Your task to perform on an android device: Search for the Best selling coffee table on Ikea Image 0: 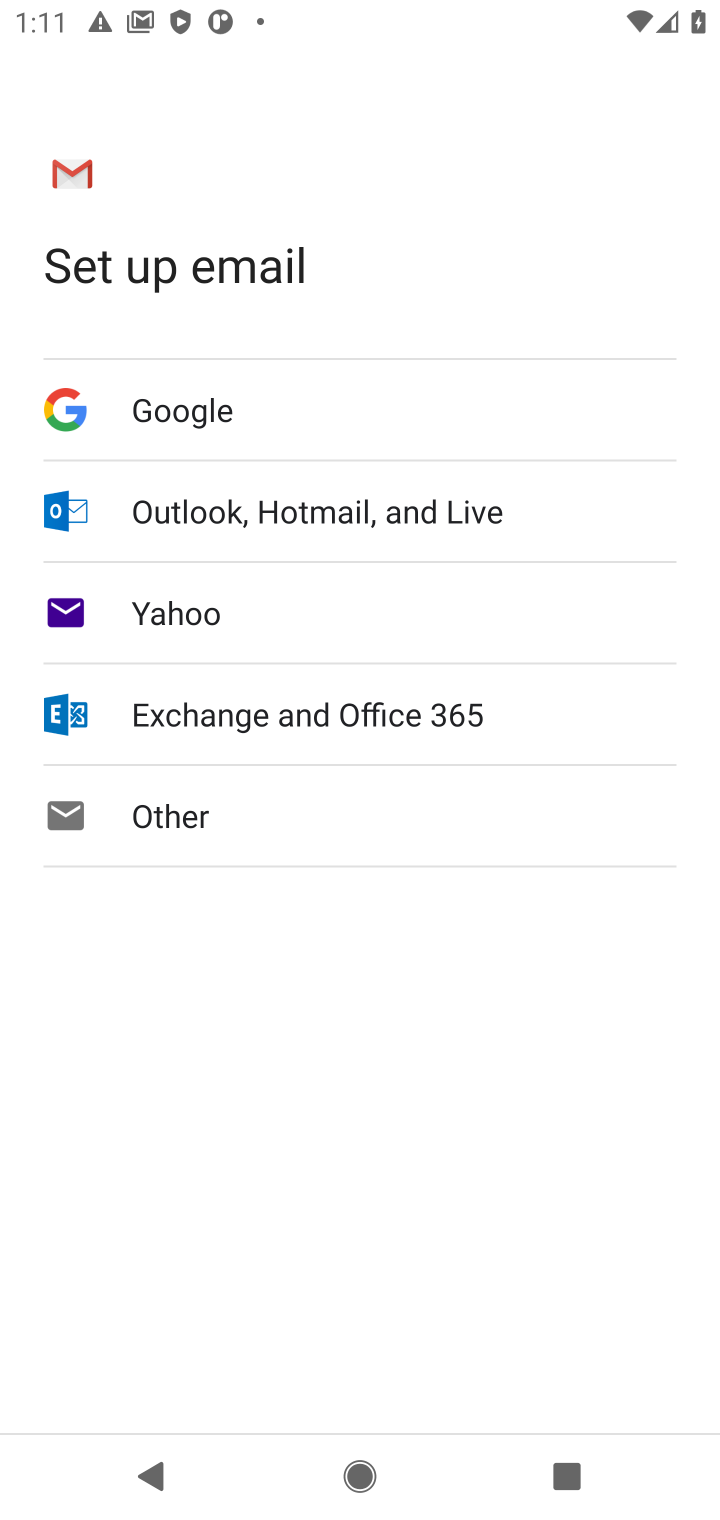
Step 0: press home button
Your task to perform on an android device: Search for the Best selling coffee table on Ikea Image 1: 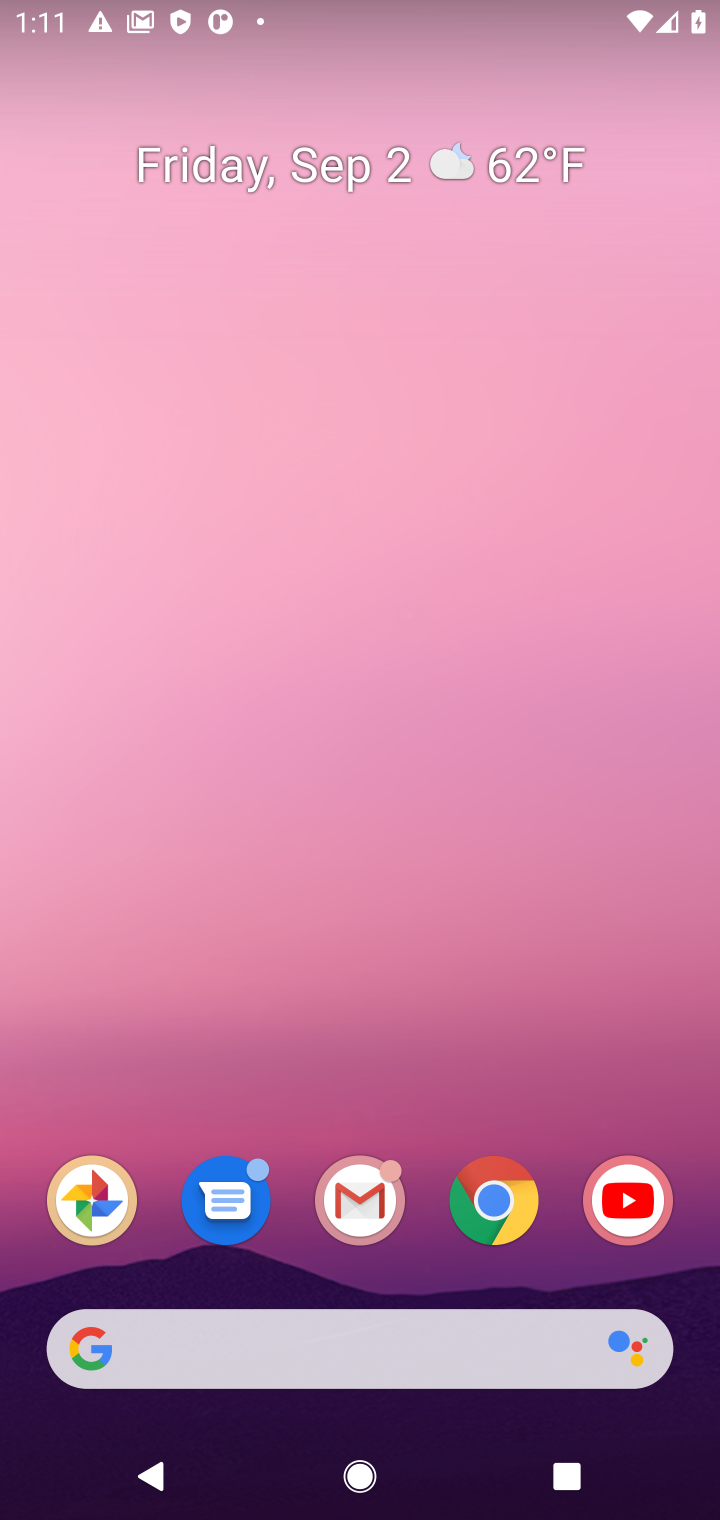
Step 1: click (483, 1202)
Your task to perform on an android device: Search for the Best selling coffee table on Ikea Image 2: 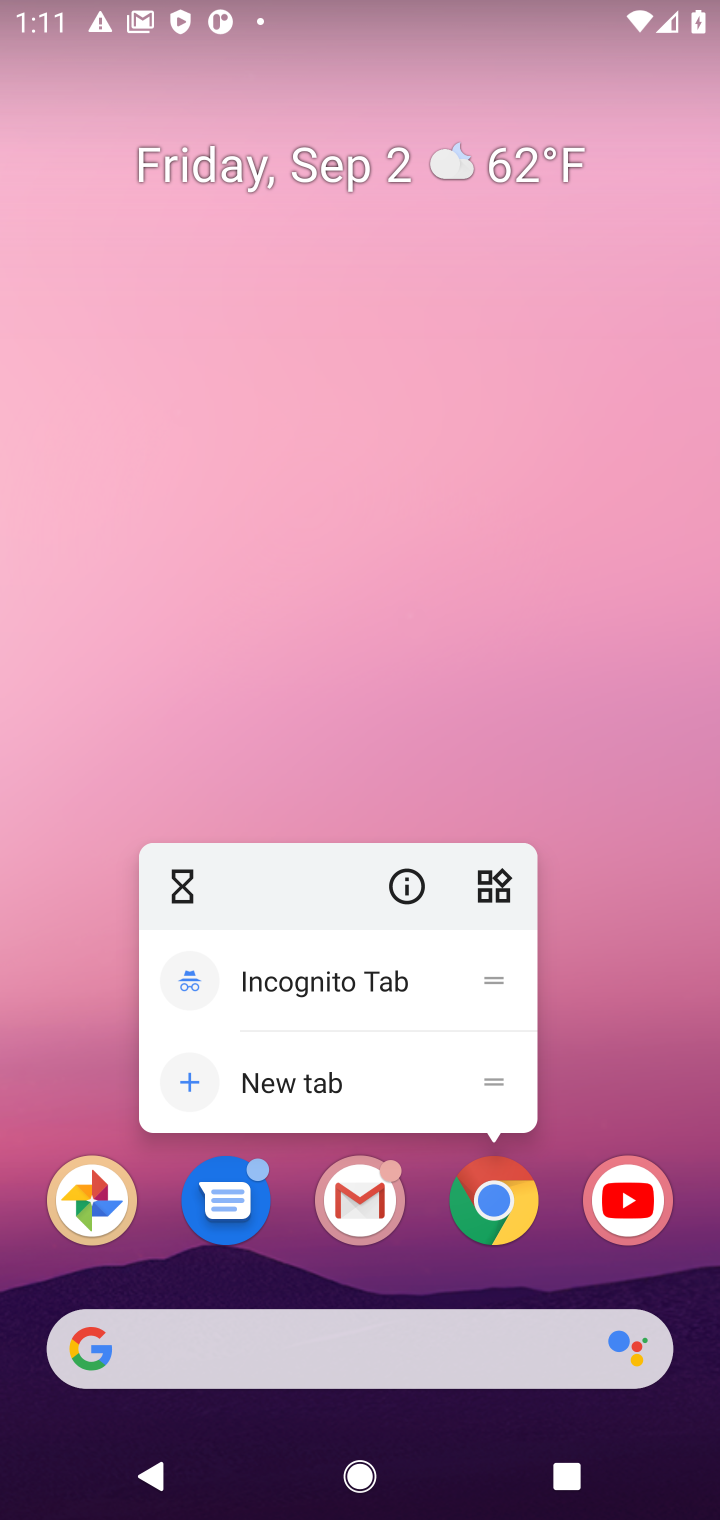
Step 2: click (483, 1203)
Your task to perform on an android device: Search for the Best selling coffee table on Ikea Image 3: 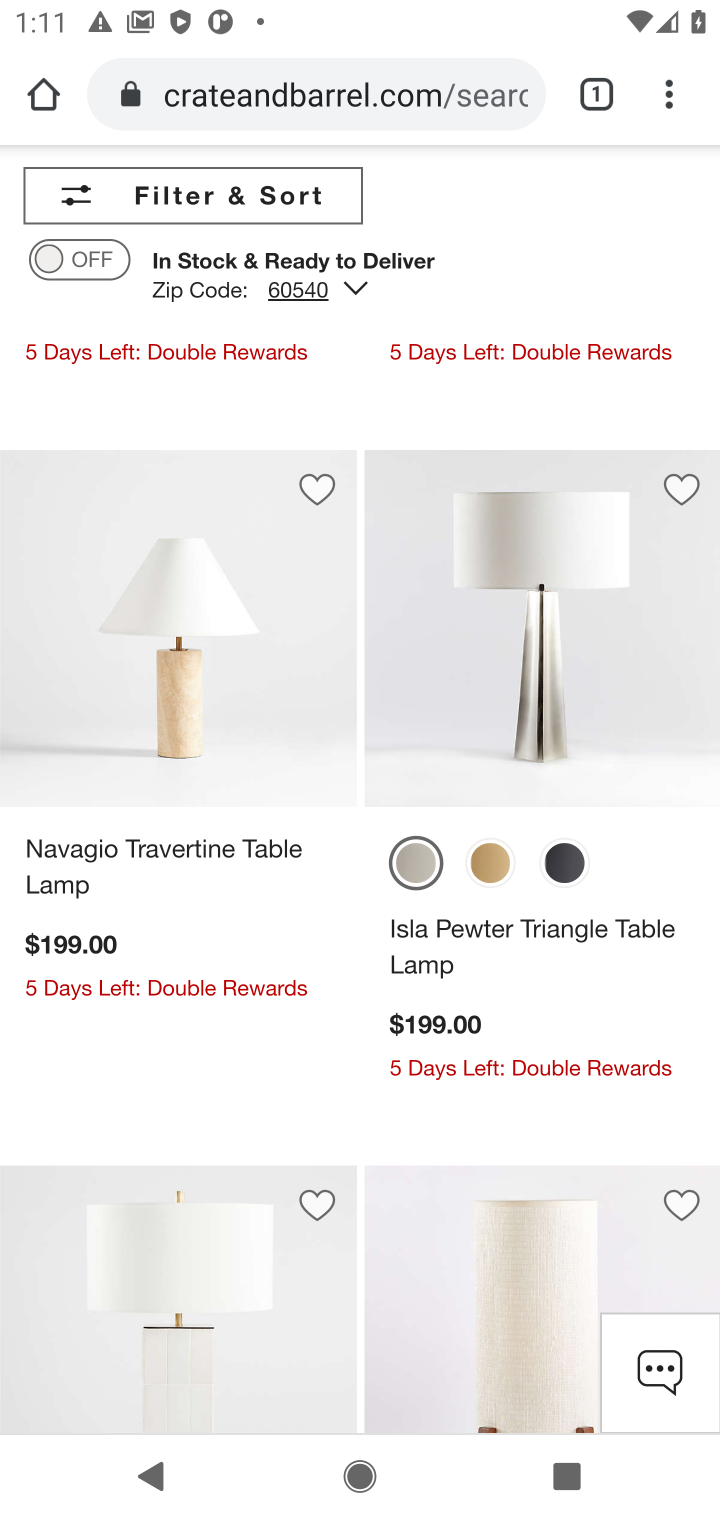
Step 3: click (403, 85)
Your task to perform on an android device: Search for the Best selling coffee table on Ikea Image 4: 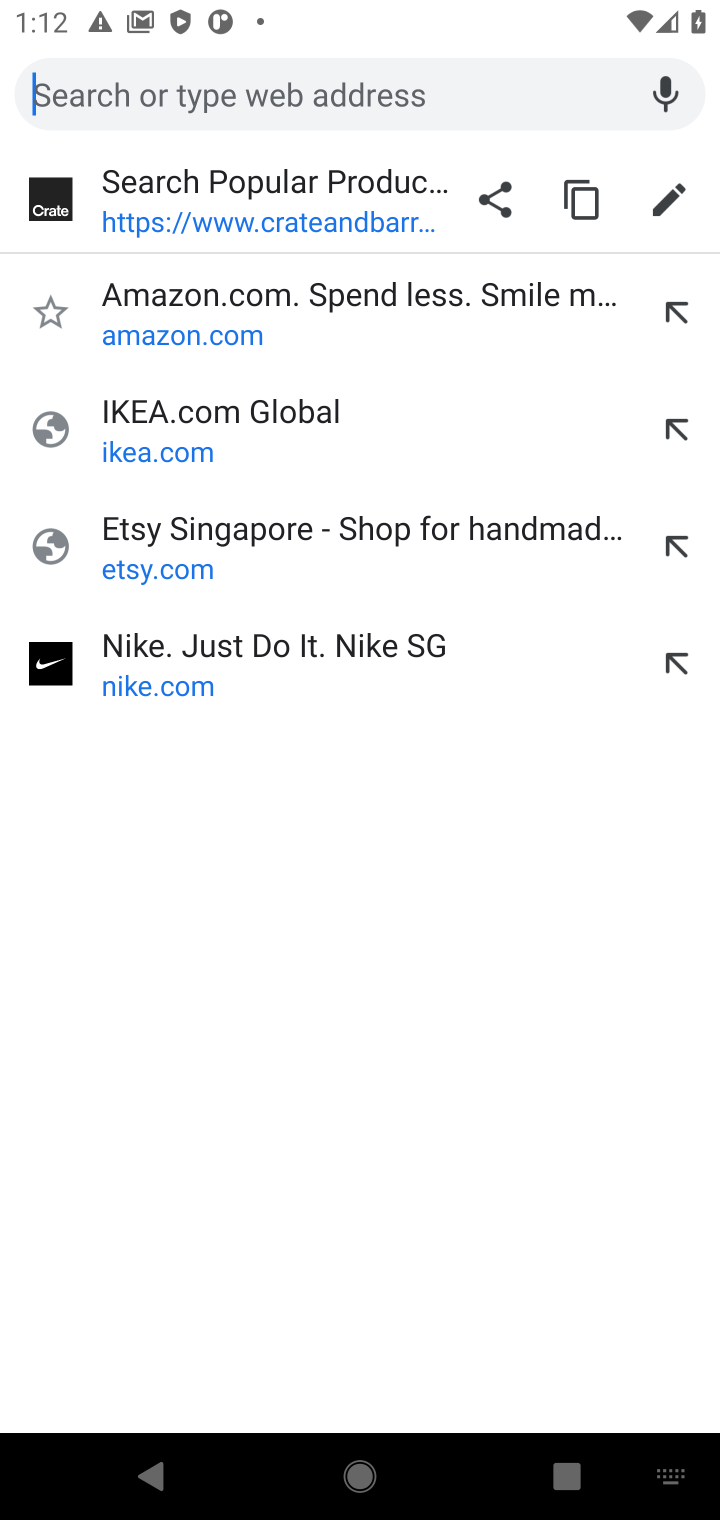
Step 4: type "Ikea"
Your task to perform on an android device: Search for the Best selling coffee table on Ikea Image 5: 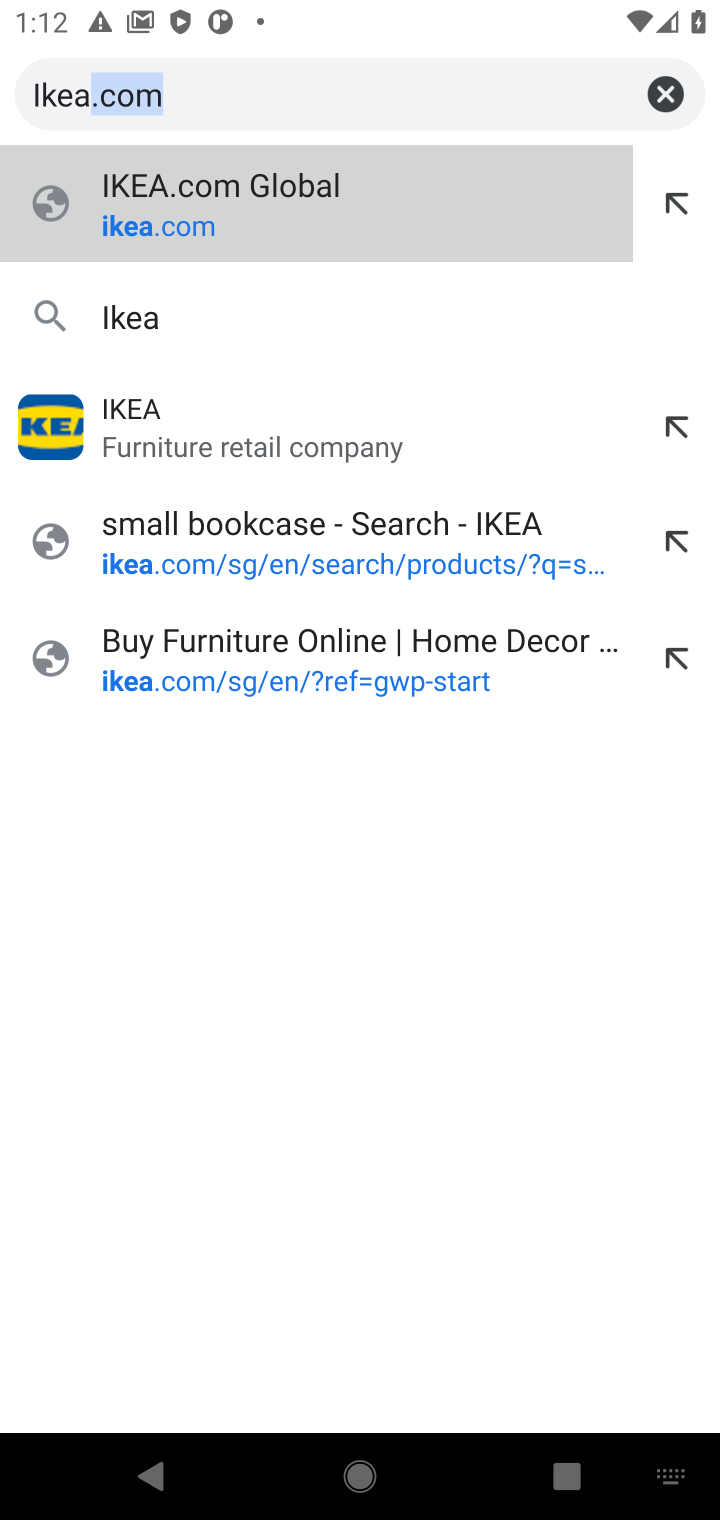
Step 5: press enter
Your task to perform on an android device: Search for the Best selling coffee table on Ikea Image 6: 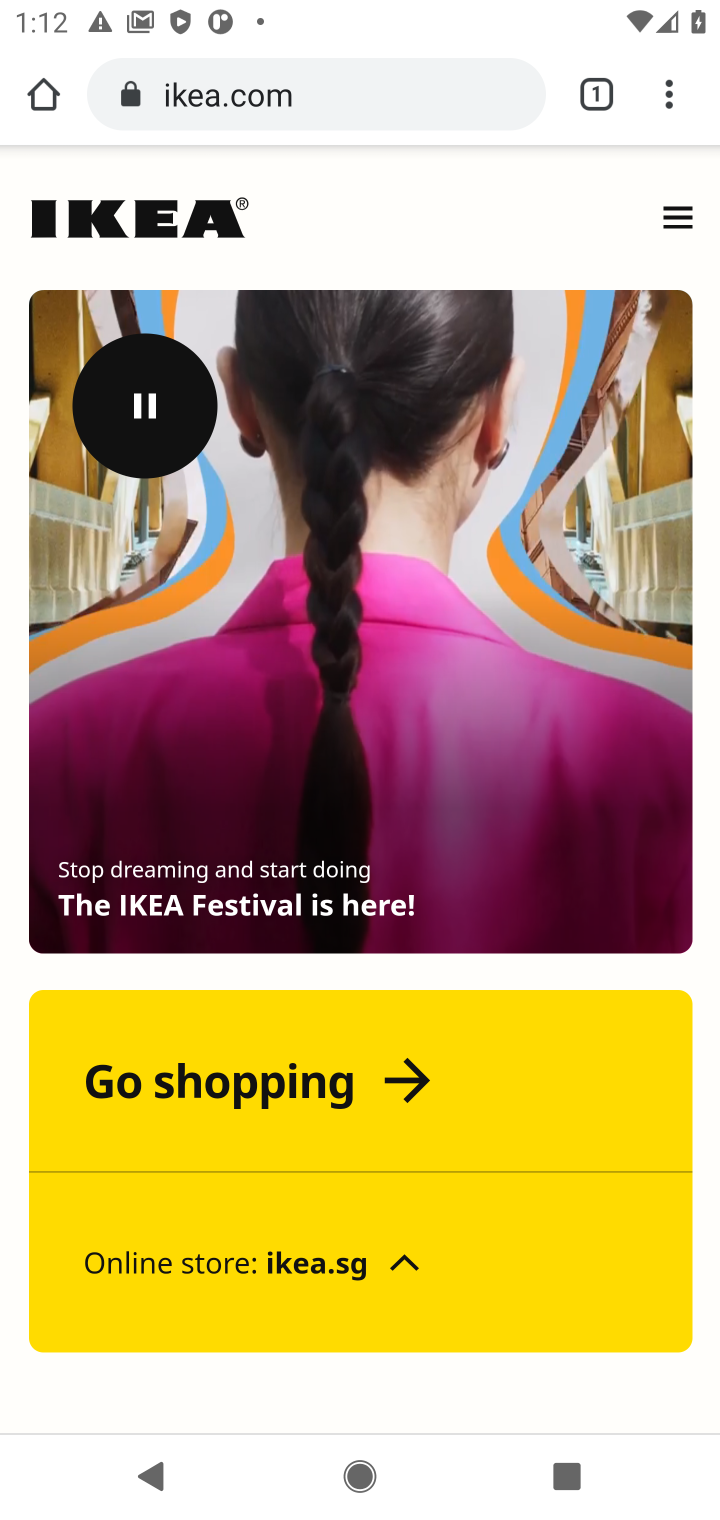
Step 6: click (234, 1083)
Your task to perform on an android device: Search for the Best selling coffee table on Ikea Image 7: 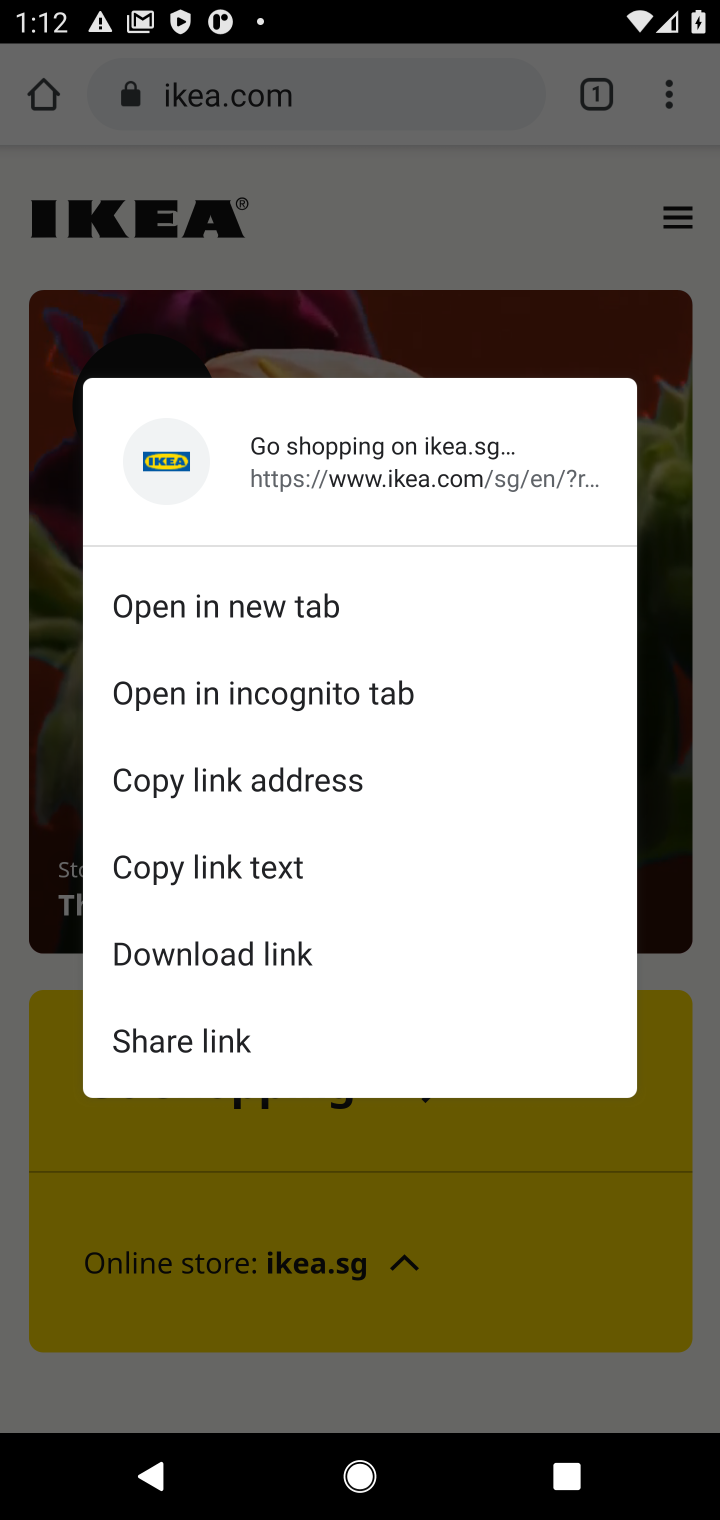
Step 7: click (560, 1143)
Your task to perform on an android device: Search for the Best selling coffee table on Ikea Image 8: 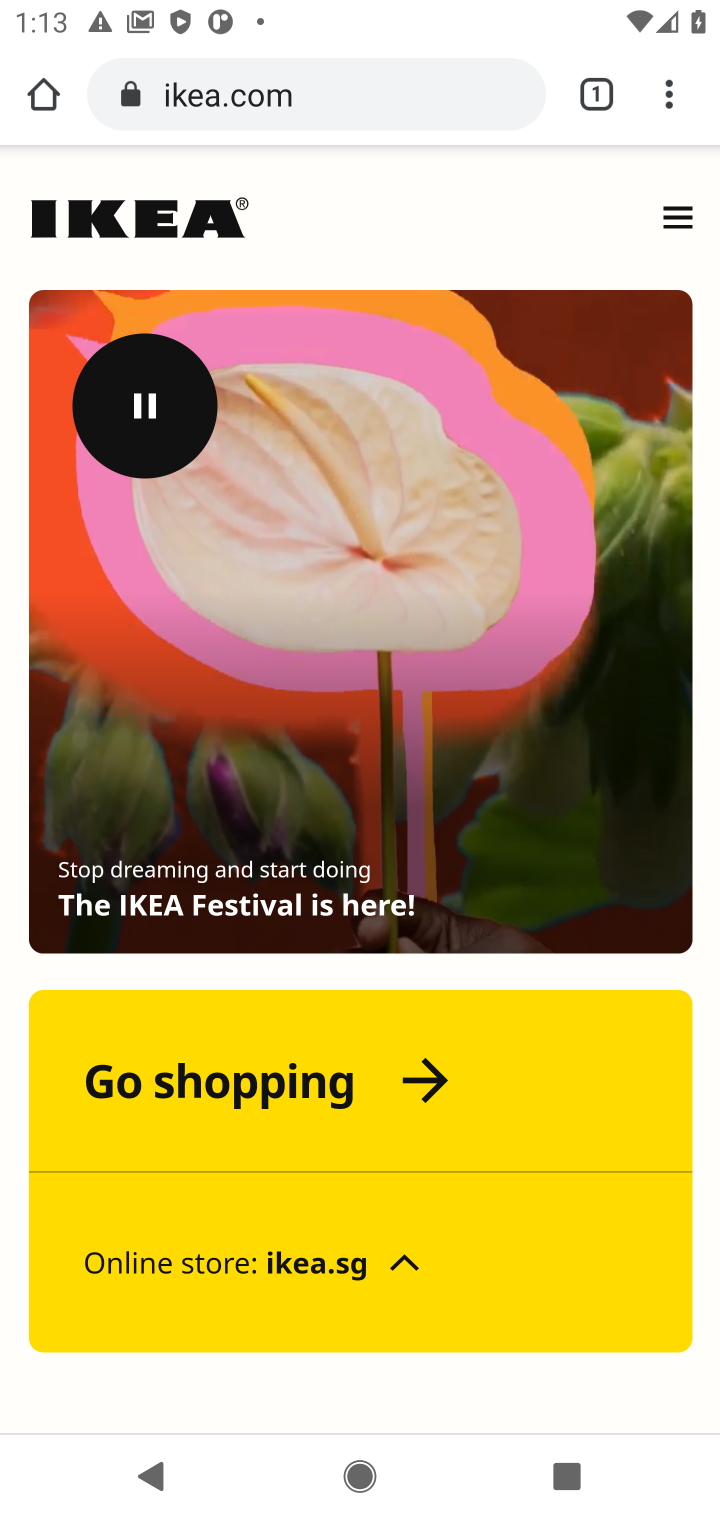
Step 8: click (406, 1081)
Your task to perform on an android device: Search for the Best selling coffee table on Ikea Image 9: 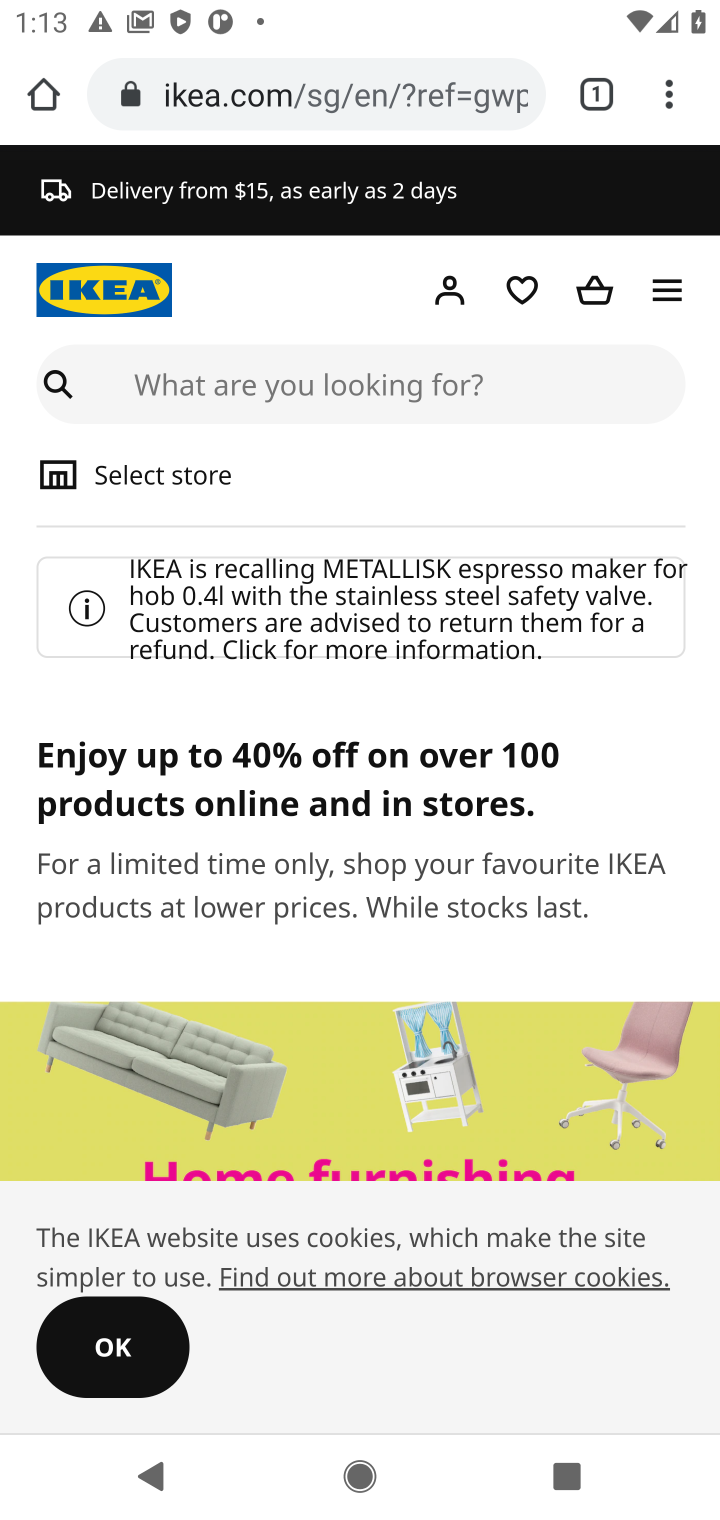
Step 9: click (337, 371)
Your task to perform on an android device: Search for the Best selling coffee table on Ikea Image 10: 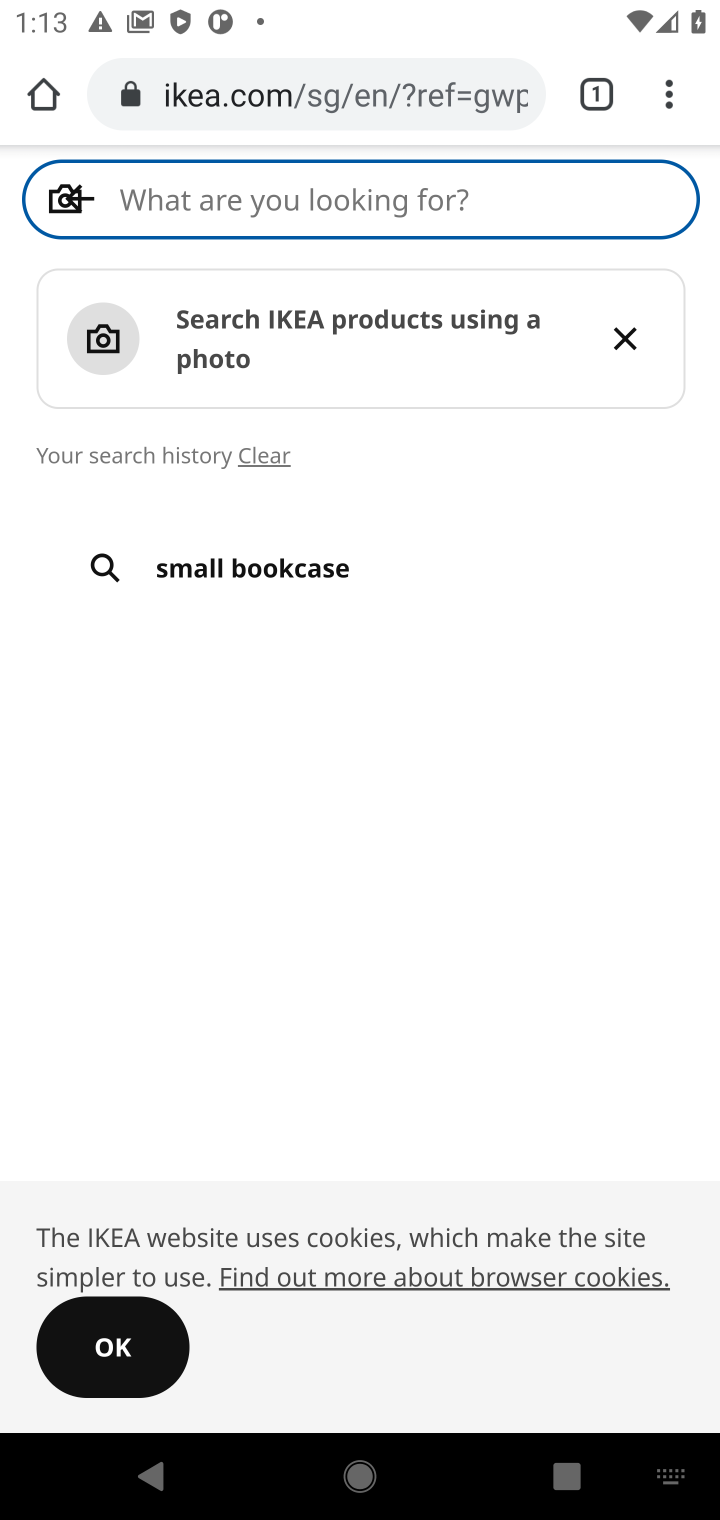
Step 10: press enter
Your task to perform on an android device: Search for the Best selling coffee table on Ikea Image 11: 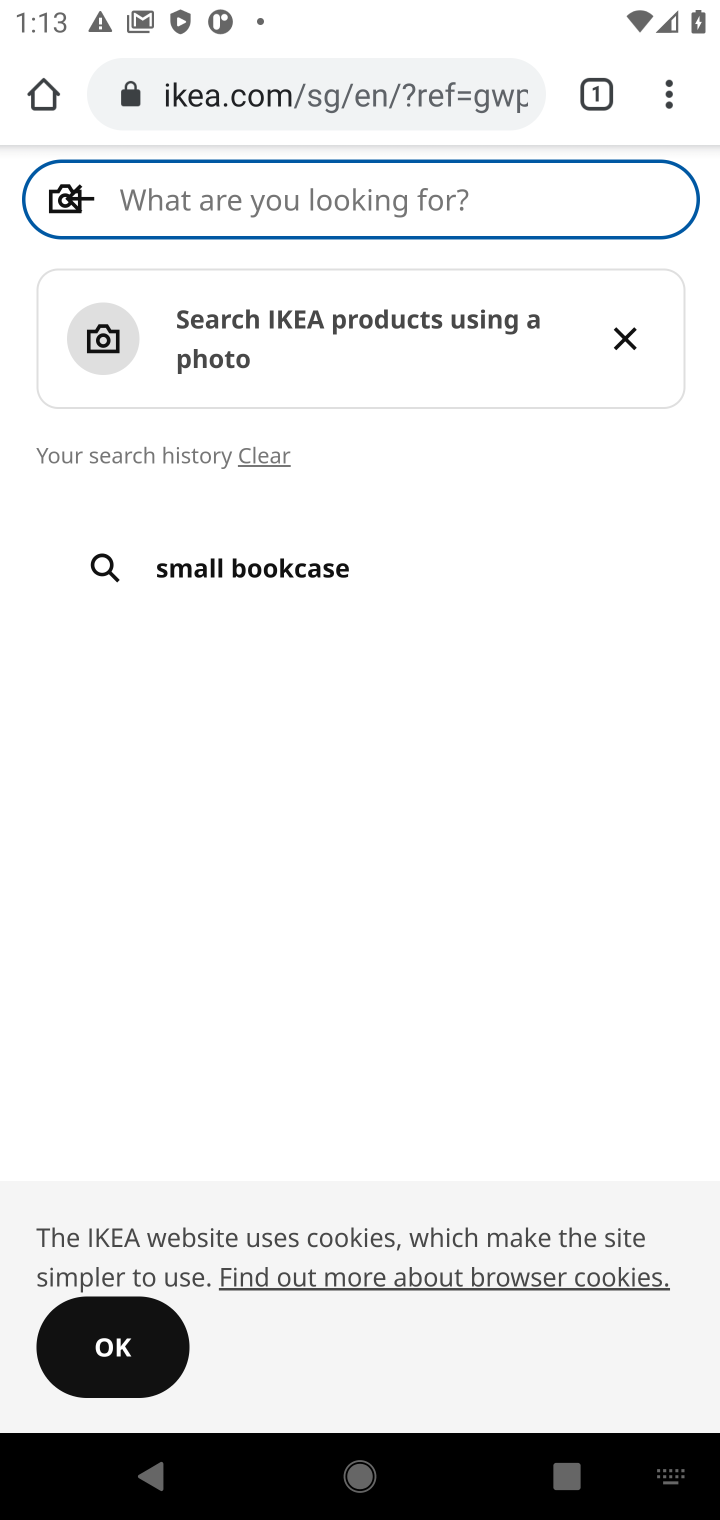
Step 11: type "coffee table"
Your task to perform on an android device: Search for the Best selling coffee table on Ikea Image 12: 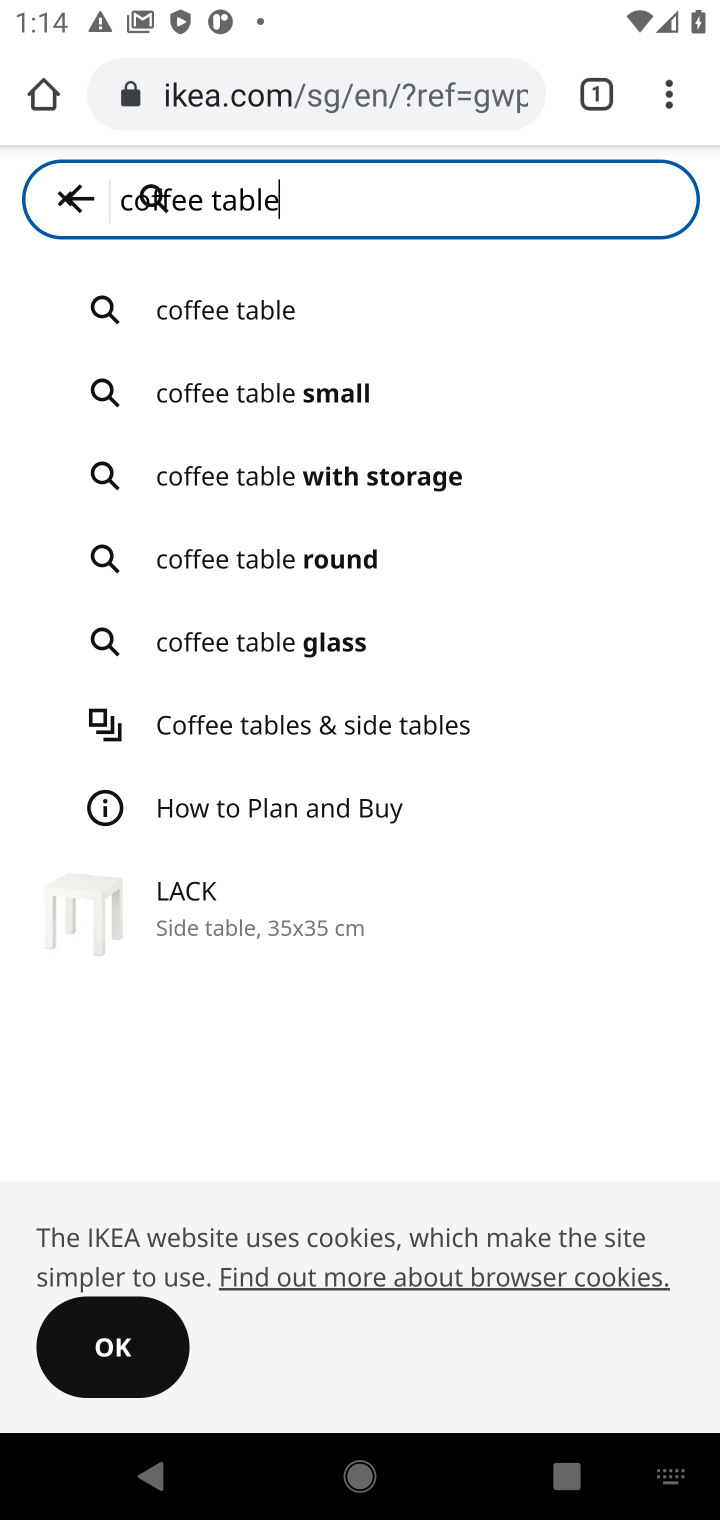
Step 12: click (251, 314)
Your task to perform on an android device: Search for the Best selling coffee table on Ikea Image 13: 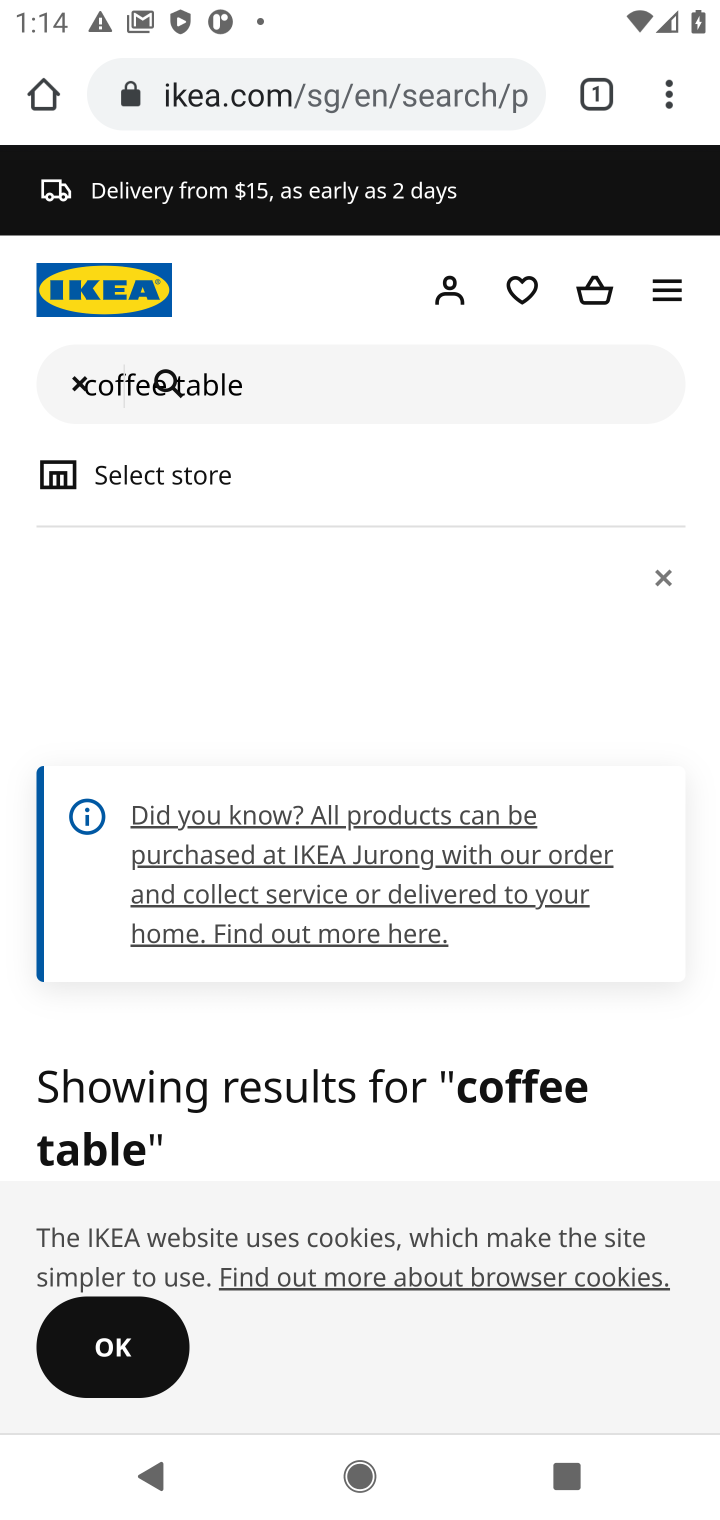
Step 13: task complete